Your task to perform on an android device: turn pop-ups off in chrome Image 0: 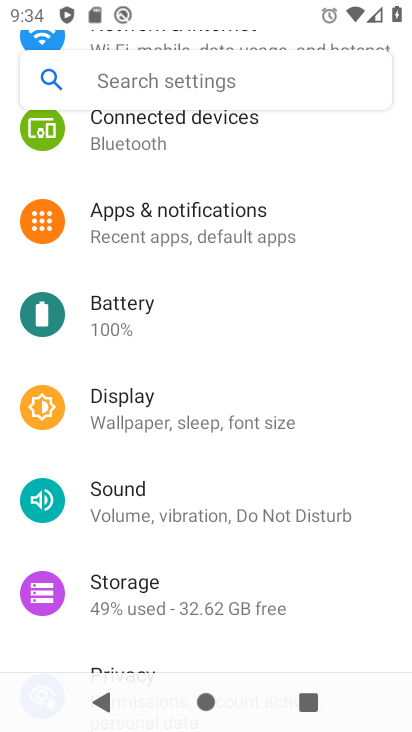
Step 0: press home button
Your task to perform on an android device: turn pop-ups off in chrome Image 1: 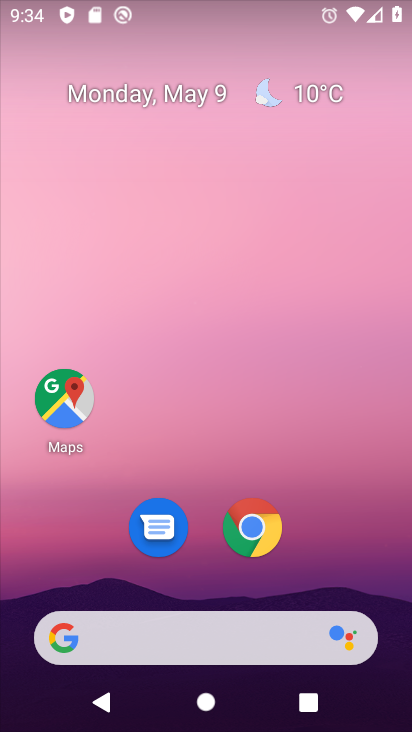
Step 1: click (248, 525)
Your task to perform on an android device: turn pop-ups off in chrome Image 2: 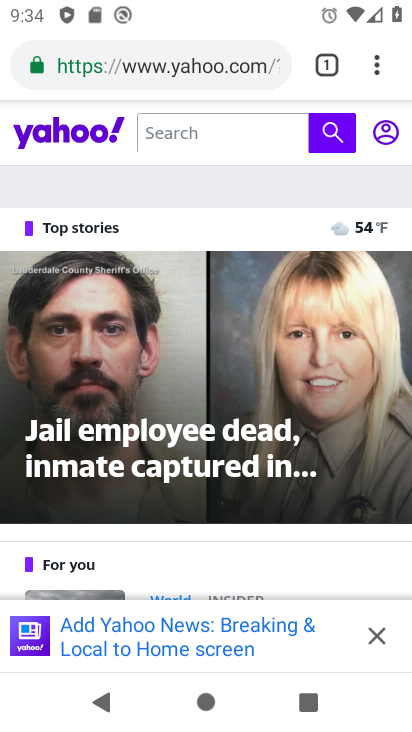
Step 2: click (376, 66)
Your task to perform on an android device: turn pop-ups off in chrome Image 3: 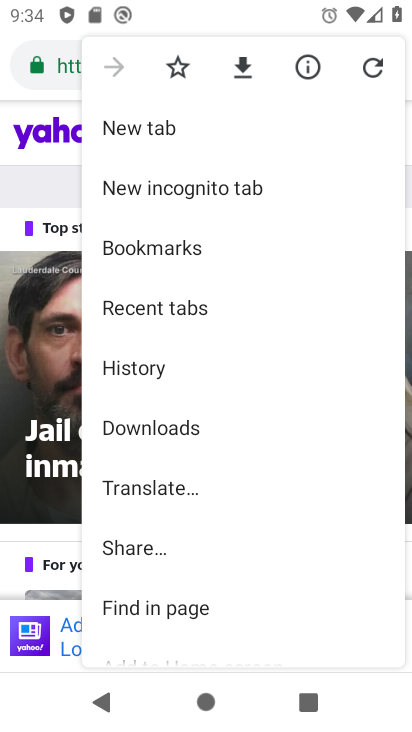
Step 3: drag from (239, 575) to (275, 154)
Your task to perform on an android device: turn pop-ups off in chrome Image 4: 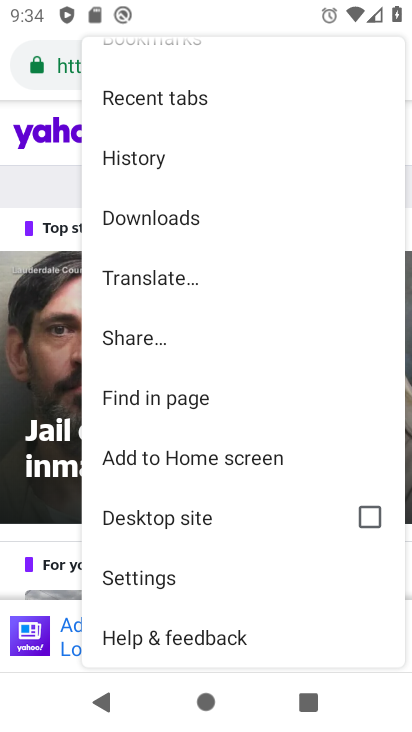
Step 4: click (136, 584)
Your task to perform on an android device: turn pop-ups off in chrome Image 5: 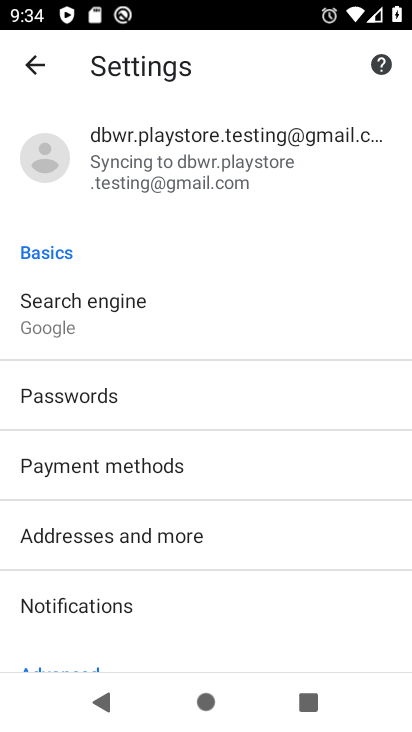
Step 5: drag from (185, 599) to (245, 180)
Your task to perform on an android device: turn pop-ups off in chrome Image 6: 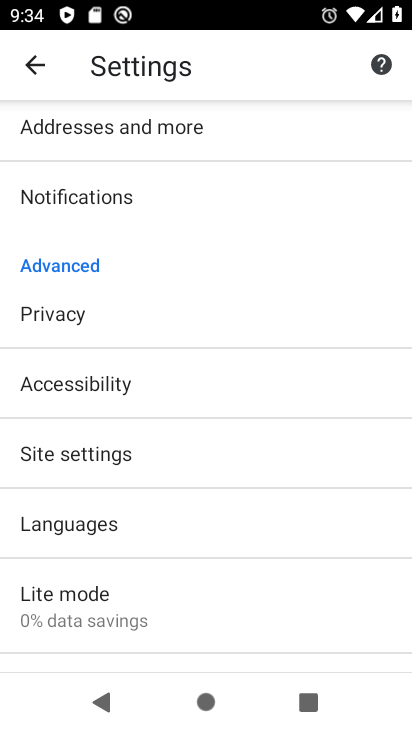
Step 6: drag from (170, 604) to (178, 217)
Your task to perform on an android device: turn pop-ups off in chrome Image 7: 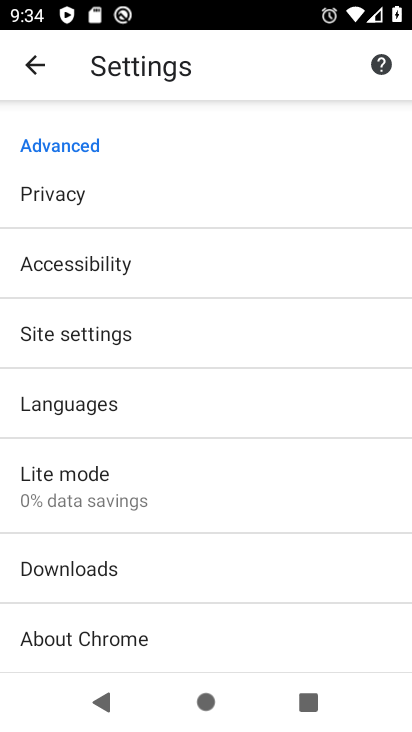
Step 7: drag from (170, 544) to (182, 352)
Your task to perform on an android device: turn pop-ups off in chrome Image 8: 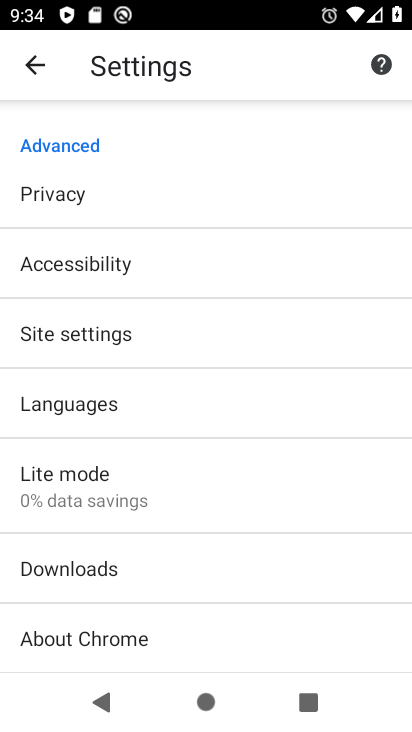
Step 8: click (72, 336)
Your task to perform on an android device: turn pop-ups off in chrome Image 9: 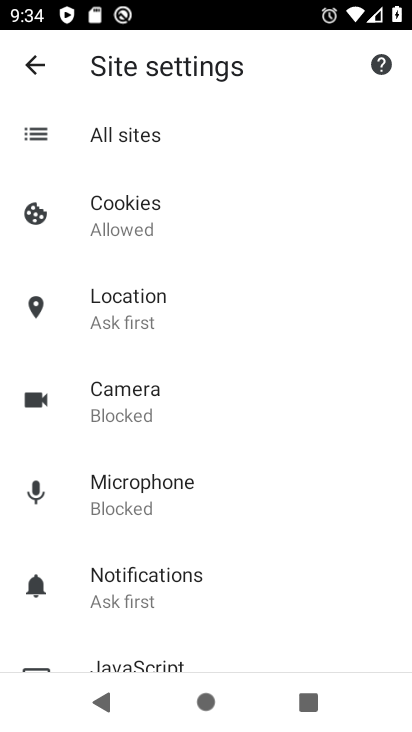
Step 9: drag from (207, 610) to (237, 374)
Your task to perform on an android device: turn pop-ups off in chrome Image 10: 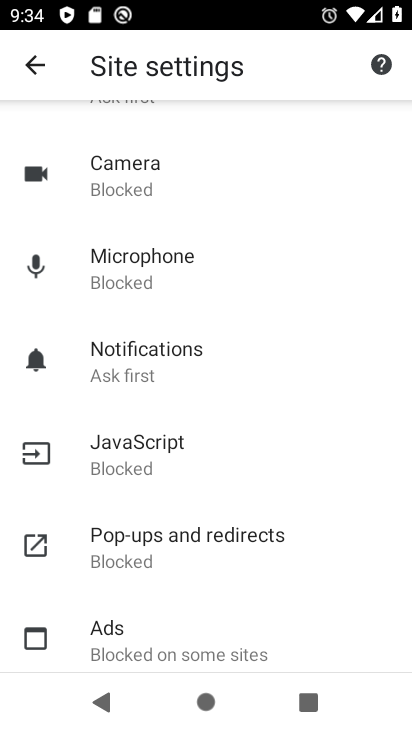
Step 10: click (130, 538)
Your task to perform on an android device: turn pop-ups off in chrome Image 11: 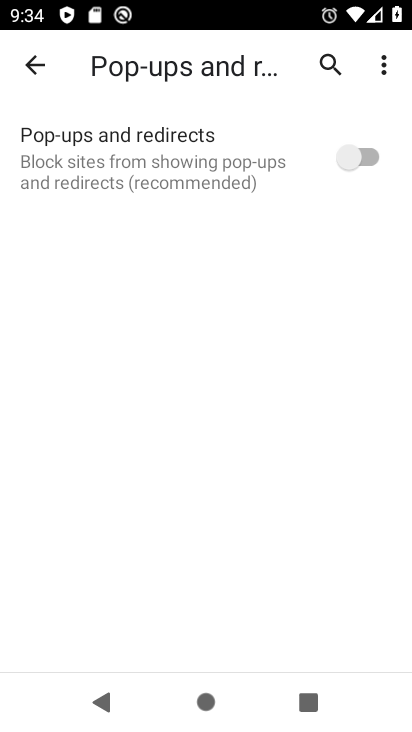
Step 11: task complete